Your task to perform on an android device: Open Chrome and go to settings Image 0: 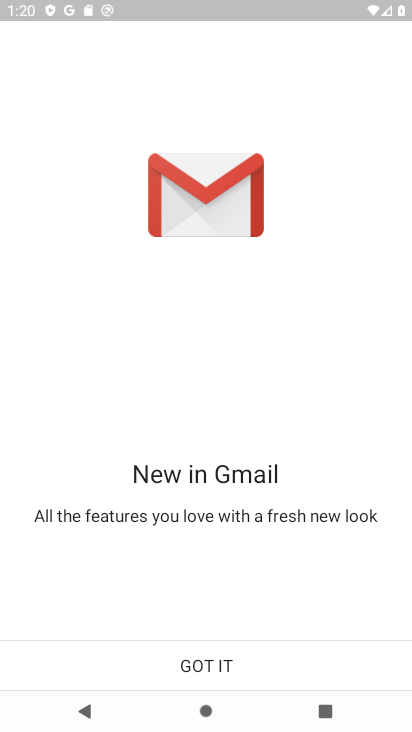
Step 0: press home button
Your task to perform on an android device: Open Chrome and go to settings Image 1: 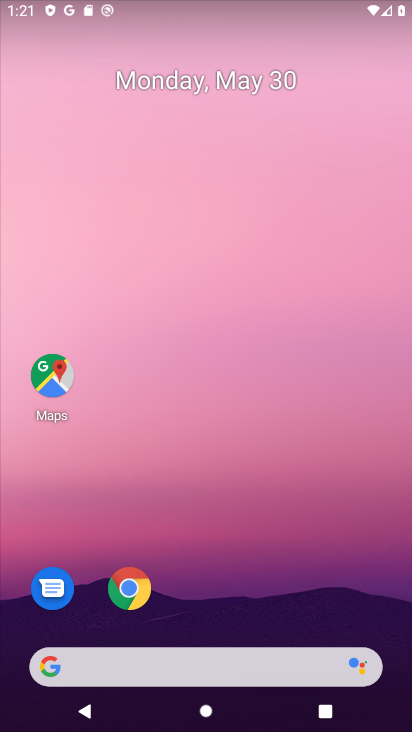
Step 1: click (125, 588)
Your task to perform on an android device: Open Chrome and go to settings Image 2: 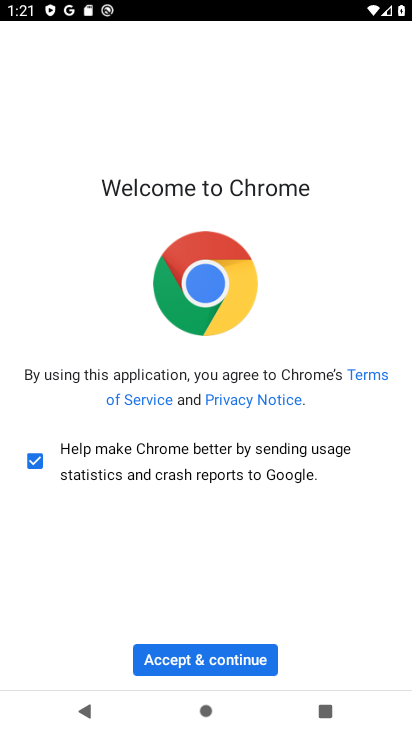
Step 2: click (203, 662)
Your task to perform on an android device: Open Chrome and go to settings Image 3: 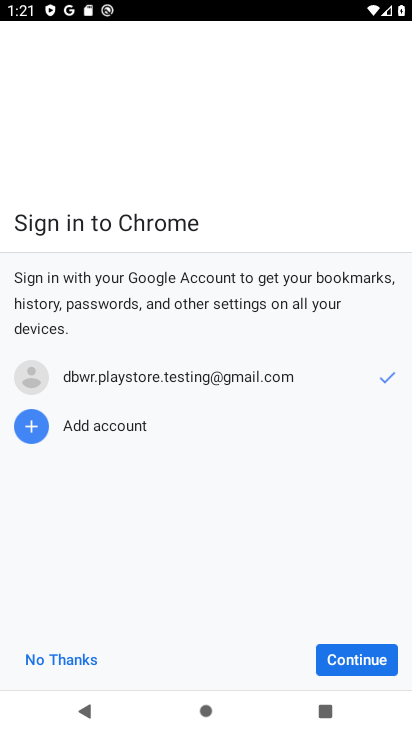
Step 3: click (354, 658)
Your task to perform on an android device: Open Chrome and go to settings Image 4: 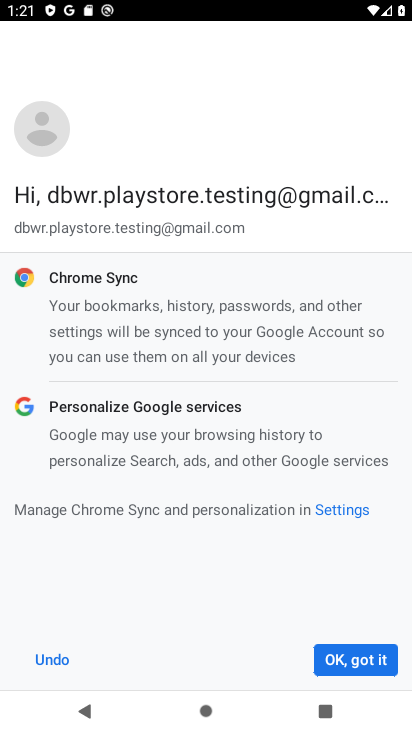
Step 4: click (354, 658)
Your task to perform on an android device: Open Chrome and go to settings Image 5: 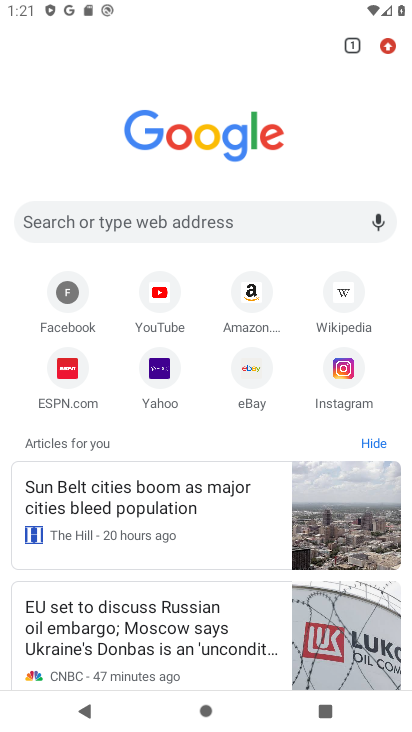
Step 5: click (392, 48)
Your task to perform on an android device: Open Chrome and go to settings Image 6: 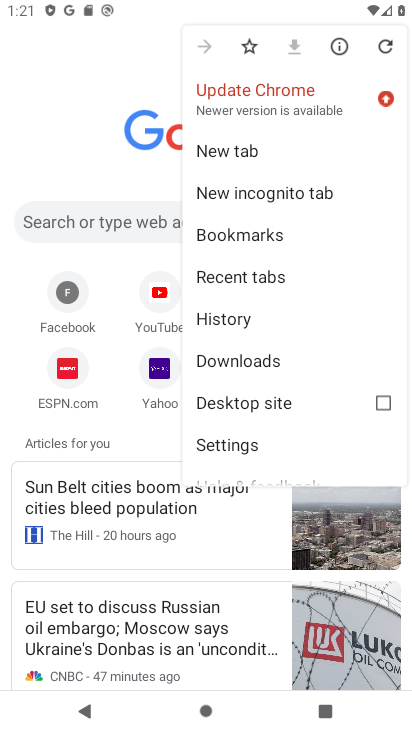
Step 6: click (237, 454)
Your task to perform on an android device: Open Chrome and go to settings Image 7: 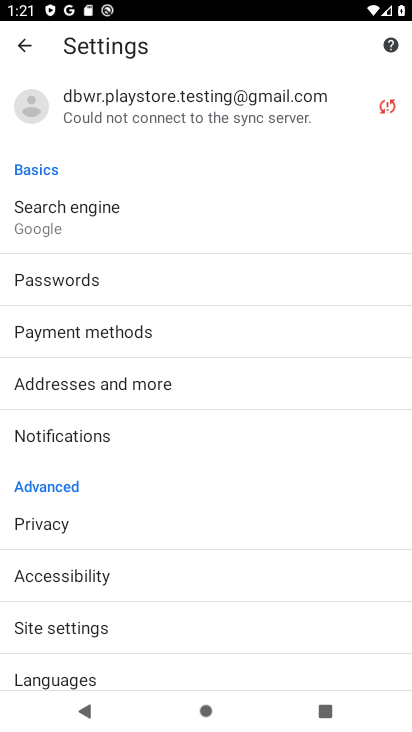
Step 7: task complete